Your task to perform on an android device: toggle notification dots Image 0: 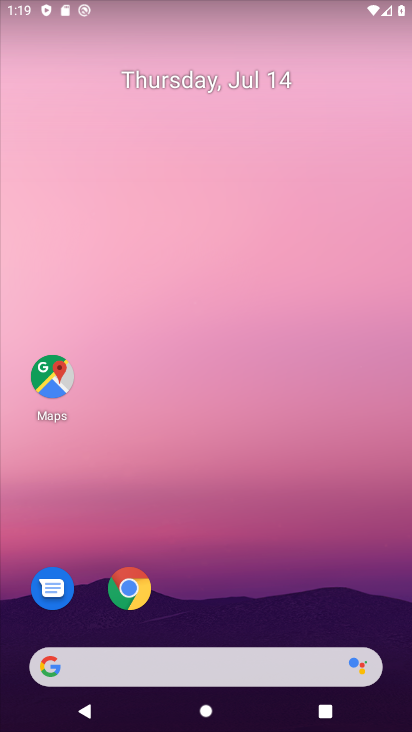
Step 0: drag from (255, 566) to (236, 166)
Your task to perform on an android device: toggle notification dots Image 1: 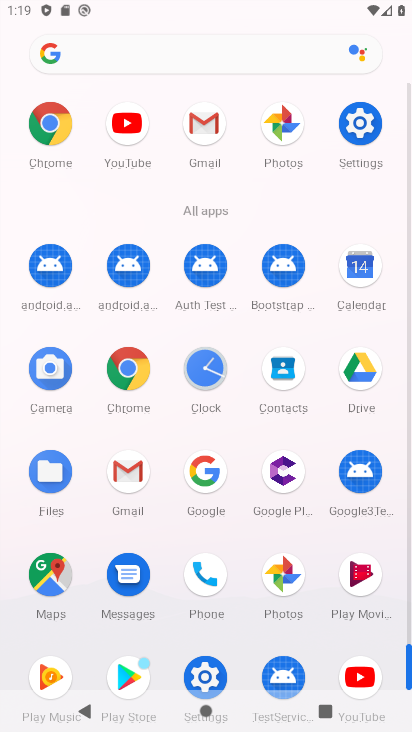
Step 1: click (358, 123)
Your task to perform on an android device: toggle notification dots Image 2: 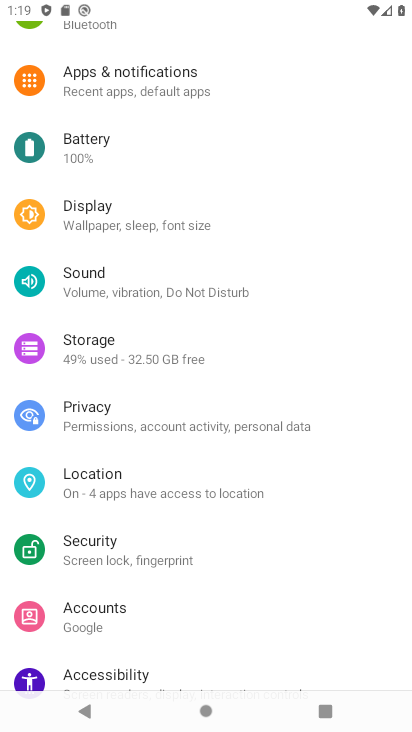
Step 2: drag from (279, 121) to (225, 508)
Your task to perform on an android device: toggle notification dots Image 3: 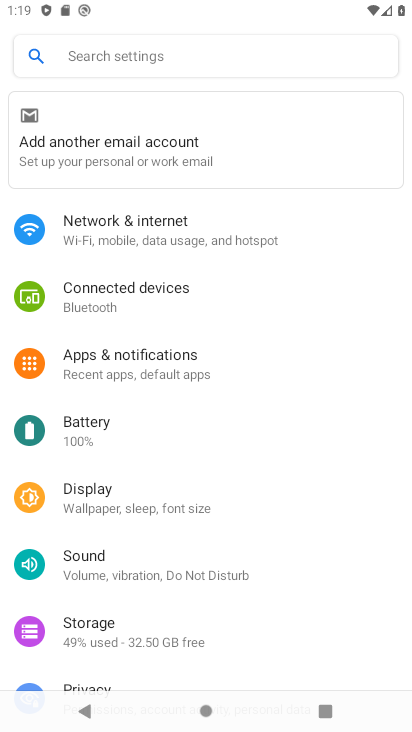
Step 3: click (157, 356)
Your task to perform on an android device: toggle notification dots Image 4: 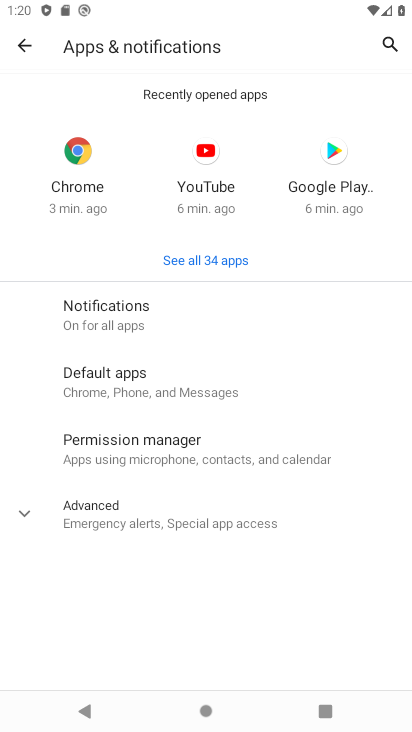
Step 4: click (175, 307)
Your task to perform on an android device: toggle notification dots Image 5: 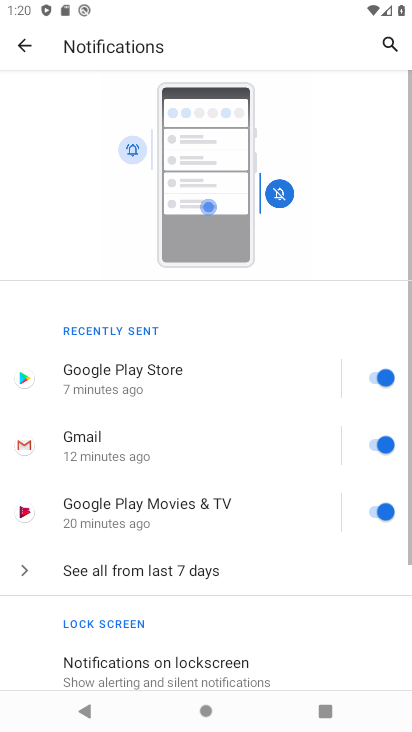
Step 5: drag from (239, 604) to (258, 182)
Your task to perform on an android device: toggle notification dots Image 6: 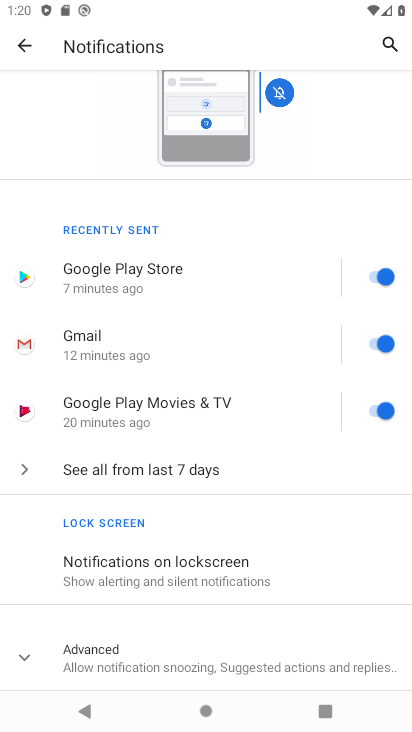
Step 6: click (311, 661)
Your task to perform on an android device: toggle notification dots Image 7: 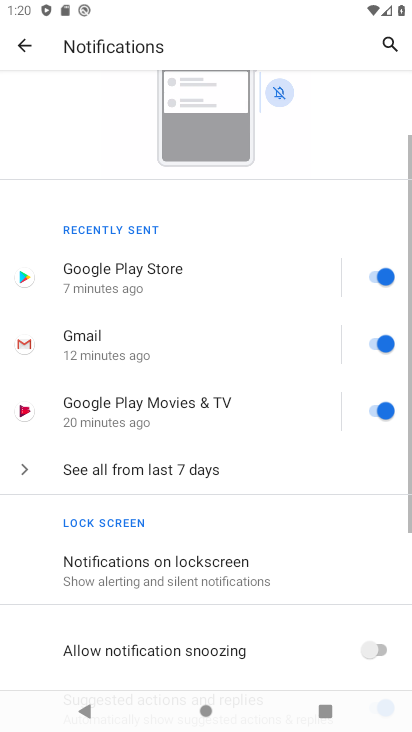
Step 7: drag from (299, 651) to (289, 137)
Your task to perform on an android device: toggle notification dots Image 8: 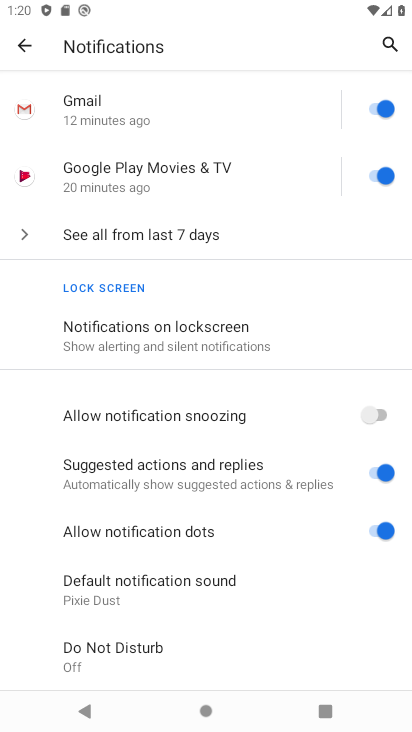
Step 8: click (390, 540)
Your task to perform on an android device: toggle notification dots Image 9: 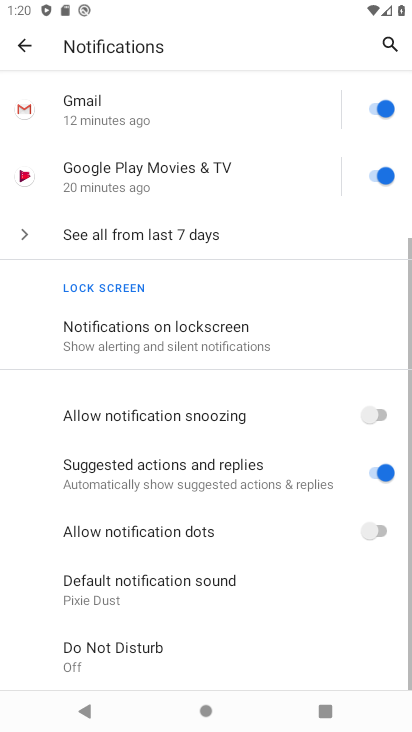
Step 9: task complete